Your task to perform on an android device: Open network settings Image 0: 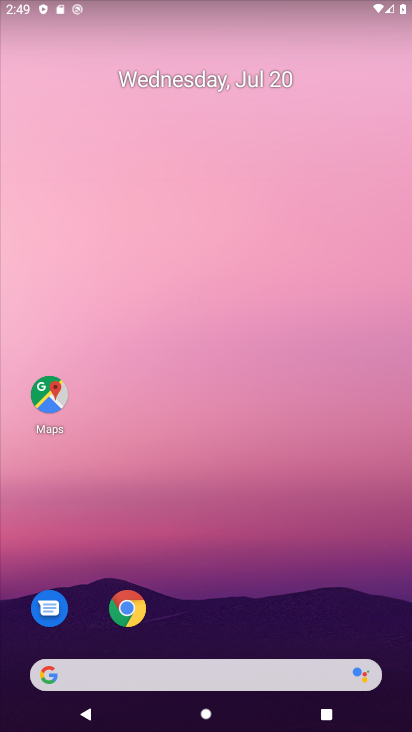
Step 0: drag from (297, 546) to (275, 110)
Your task to perform on an android device: Open network settings Image 1: 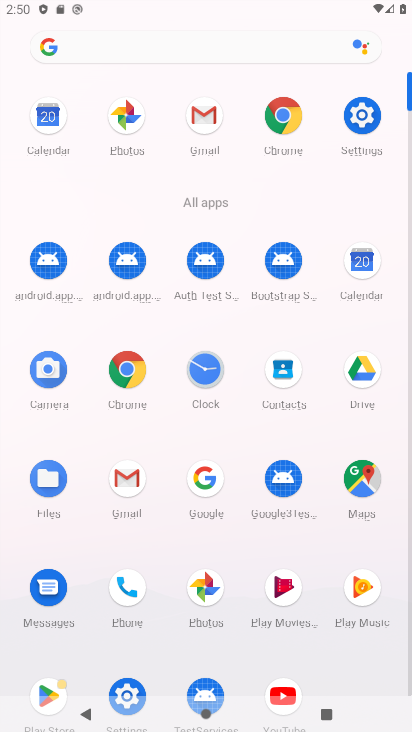
Step 1: click (359, 124)
Your task to perform on an android device: Open network settings Image 2: 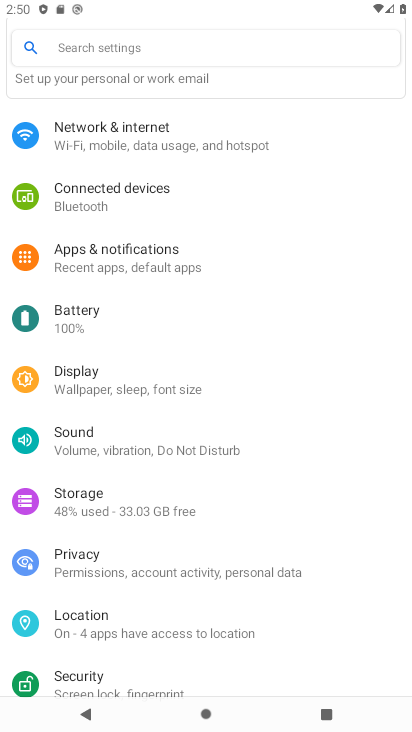
Step 2: click (177, 145)
Your task to perform on an android device: Open network settings Image 3: 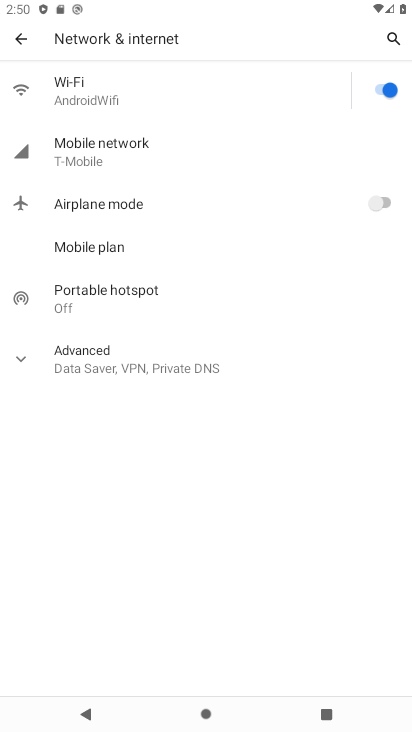
Step 3: task complete